Your task to perform on an android device: Search for the best way to get rid of a cold Image 0: 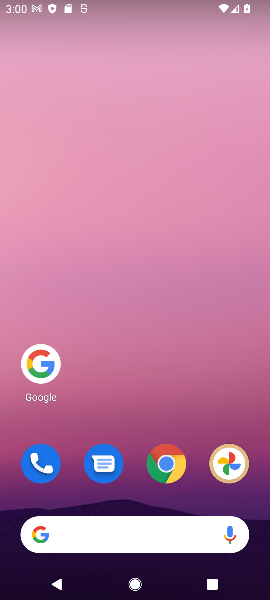
Step 0: click (37, 359)
Your task to perform on an android device: Search for the best way to get rid of a cold Image 1: 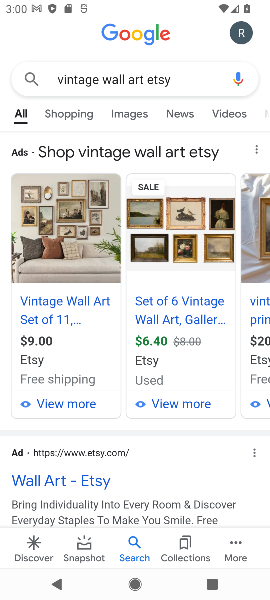
Step 1: click (185, 67)
Your task to perform on an android device: Search for the best way to get rid of a cold Image 2: 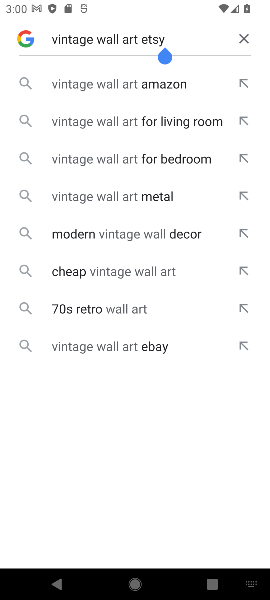
Step 2: click (247, 42)
Your task to perform on an android device: Search for the best way to get rid of a cold Image 3: 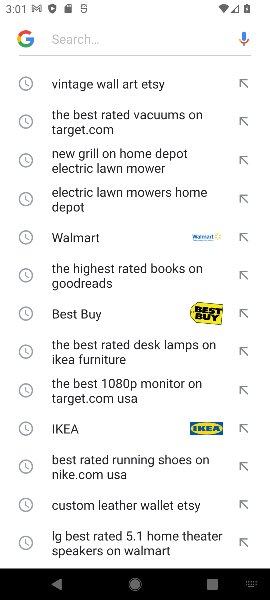
Step 3: click (100, 45)
Your task to perform on an android device: Search for the best way to get rid of a cold Image 4: 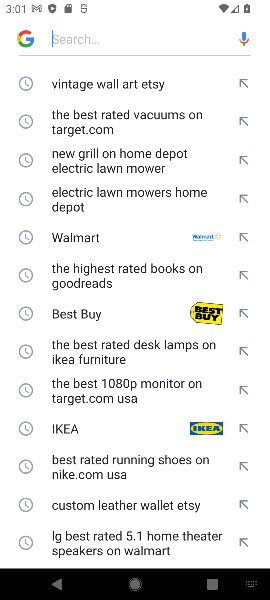
Step 4: click (100, 43)
Your task to perform on an android device: Search for the best way to get rid of a cold Image 5: 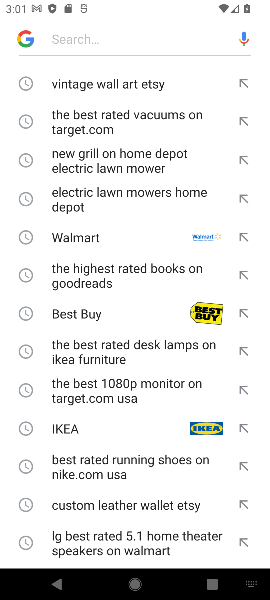
Step 5: type " the best way to get rid of a cold "
Your task to perform on an android device: Search for the best way to get rid of a cold Image 6: 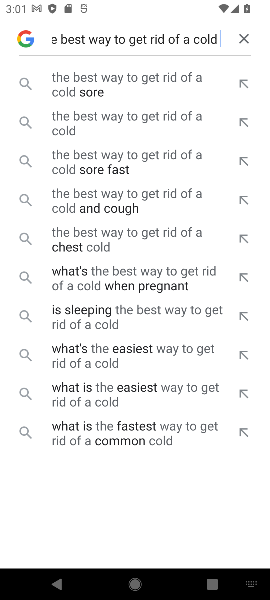
Step 6: click (84, 82)
Your task to perform on an android device: Search for the best way to get rid of a cold Image 7: 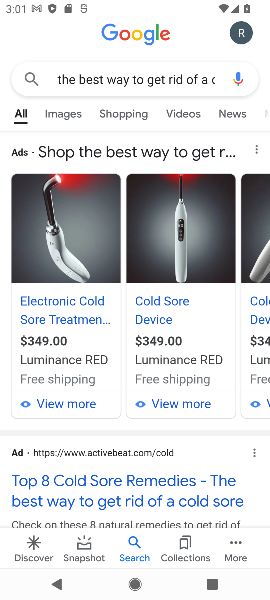
Step 7: drag from (133, 409) to (133, 262)
Your task to perform on an android device: Search for the best way to get rid of a cold Image 8: 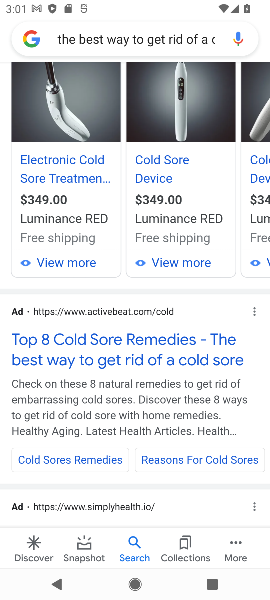
Step 8: drag from (144, 425) to (160, 261)
Your task to perform on an android device: Search for the best way to get rid of a cold Image 9: 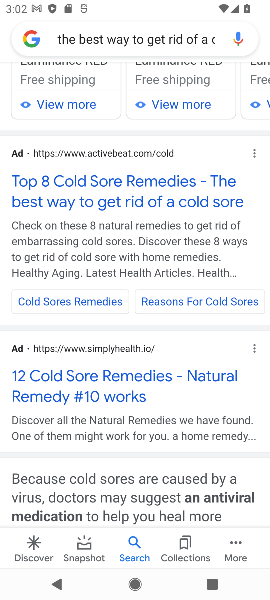
Step 9: click (56, 192)
Your task to perform on an android device: Search for the best way to get rid of a cold Image 10: 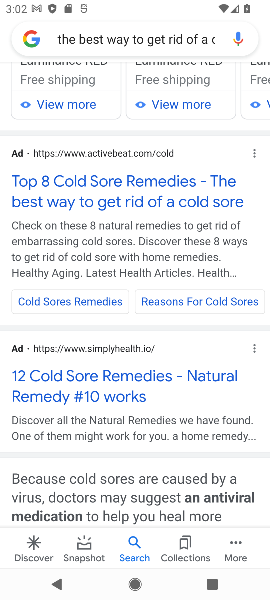
Step 10: click (56, 192)
Your task to perform on an android device: Search for the best way to get rid of a cold Image 11: 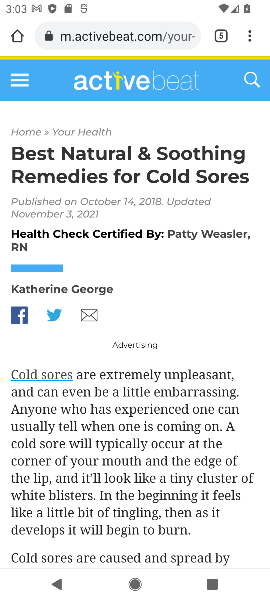
Step 11: task complete